Your task to perform on an android device: Go to Maps Image 0: 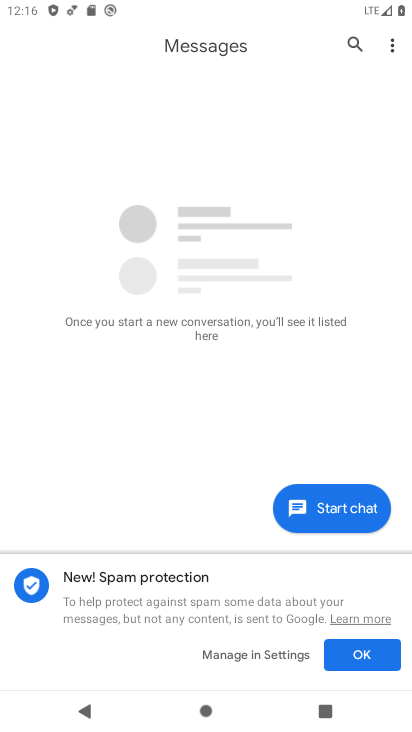
Step 0: press home button
Your task to perform on an android device: Go to Maps Image 1: 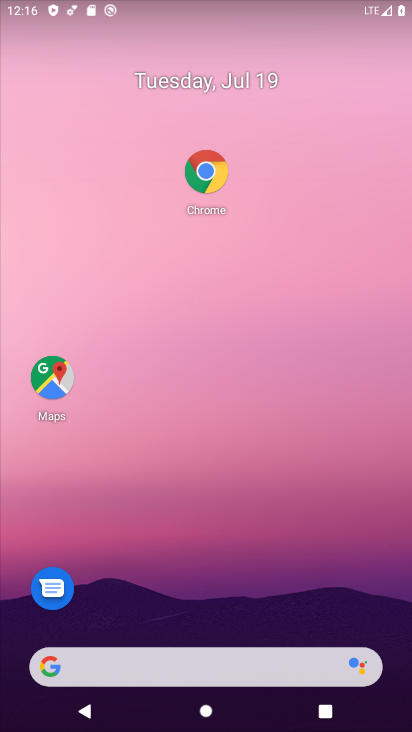
Step 1: click (43, 377)
Your task to perform on an android device: Go to Maps Image 2: 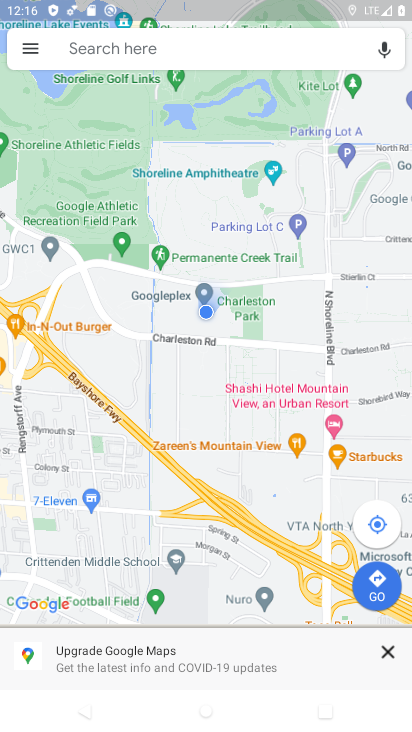
Step 2: task complete